Your task to perform on an android device: toggle priority inbox in the gmail app Image 0: 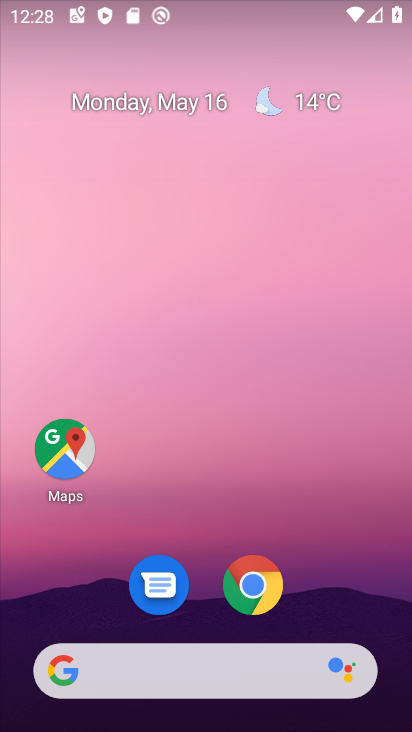
Step 0: drag from (306, 515) to (291, 44)
Your task to perform on an android device: toggle priority inbox in the gmail app Image 1: 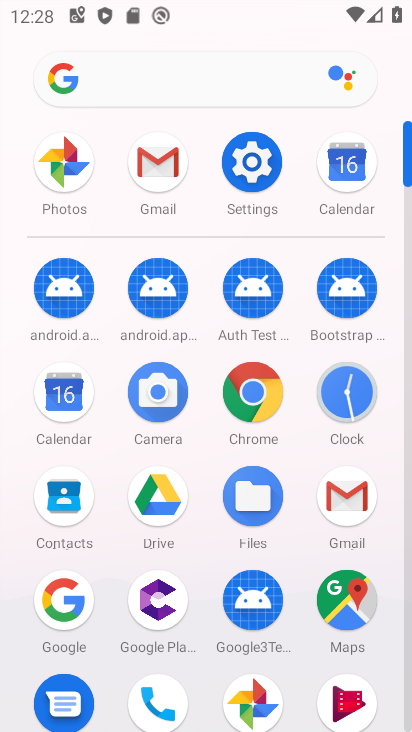
Step 1: click (156, 155)
Your task to perform on an android device: toggle priority inbox in the gmail app Image 2: 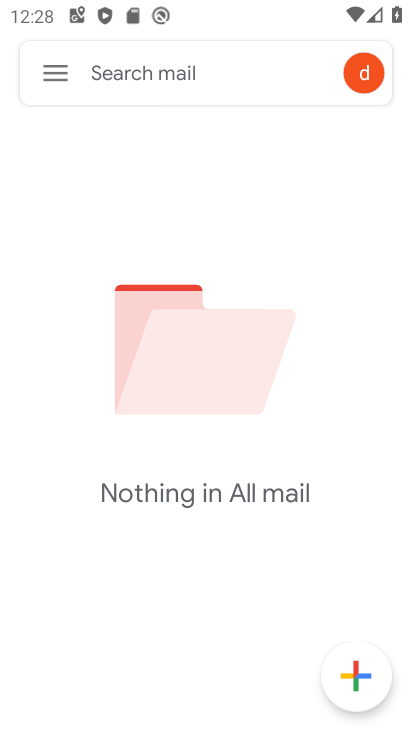
Step 2: click (51, 73)
Your task to perform on an android device: toggle priority inbox in the gmail app Image 3: 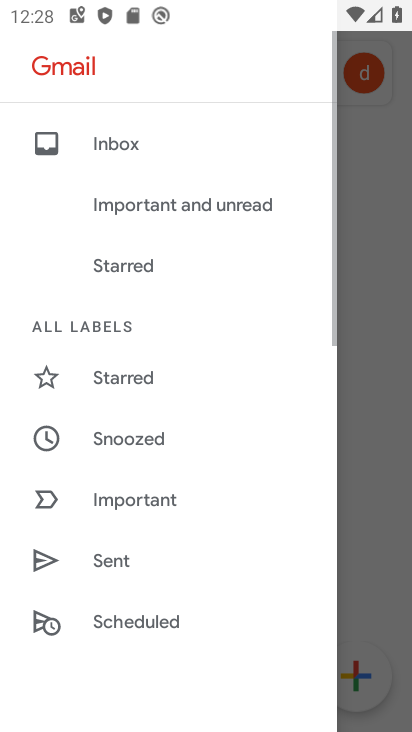
Step 3: drag from (211, 531) to (225, 216)
Your task to perform on an android device: toggle priority inbox in the gmail app Image 4: 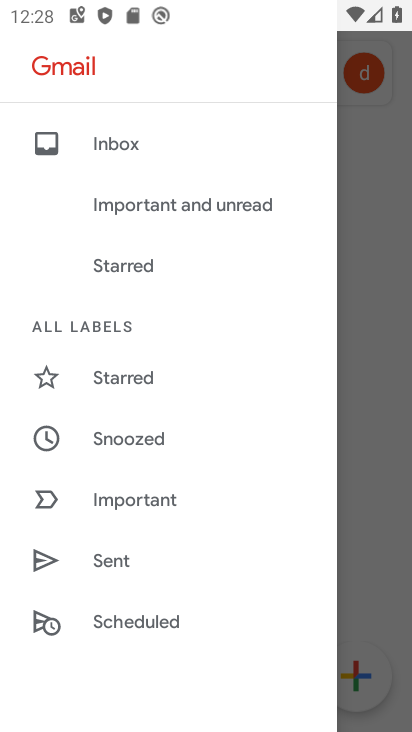
Step 4: drag from (130, 582) to (158, 60)
Your task to perform on an android device: toggle priority inbox in the gmail app Image 5: 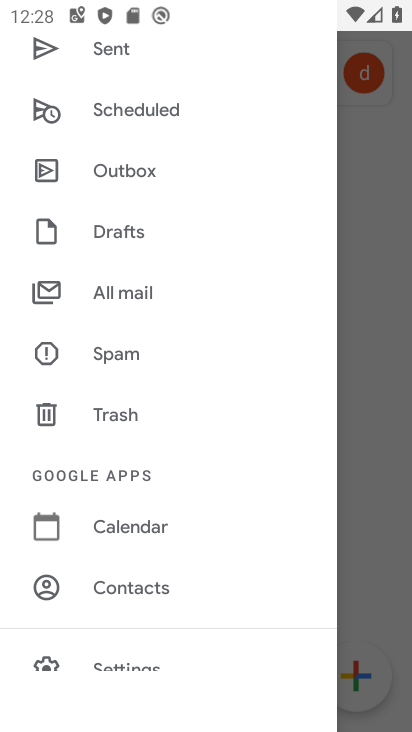
Step 5: drag from (149, 386) to (176, 94)
Your task to perform on an android device: toggle priority inbox in the gmail app Image 6: 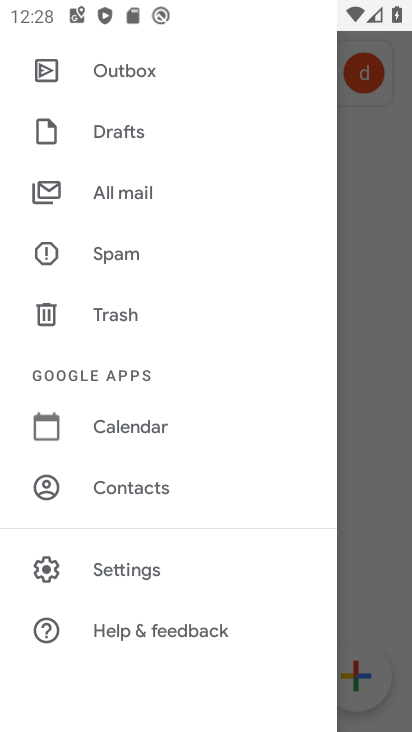
Step 6: click (148, 569)
Your task to perform on an android device: toggle priority inbox in the gmail app Image 7: 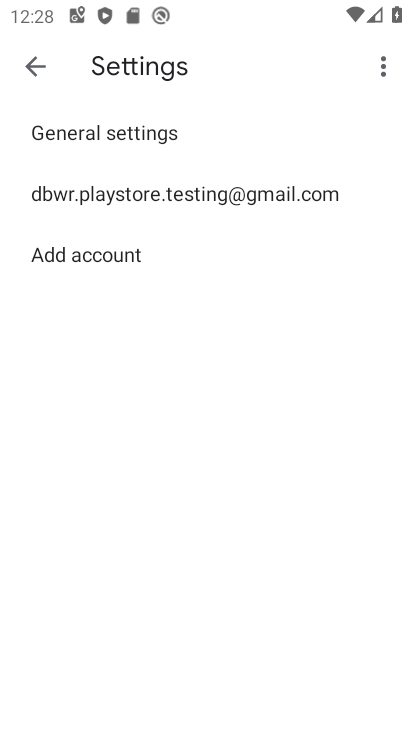
Step 7: click (197, 189)
Your task to perform on an android device: toggle priority inbox in the gmail app Image 8: 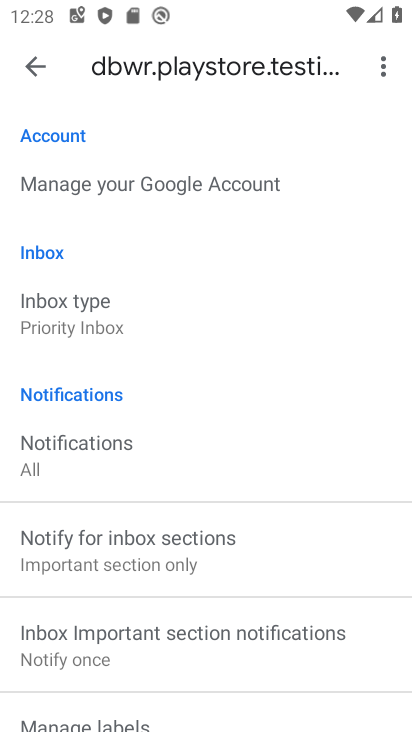
Step 8: click (85, 302)
Your task to perform on an android device: toggle priority inbox in the gmail app Image 9: 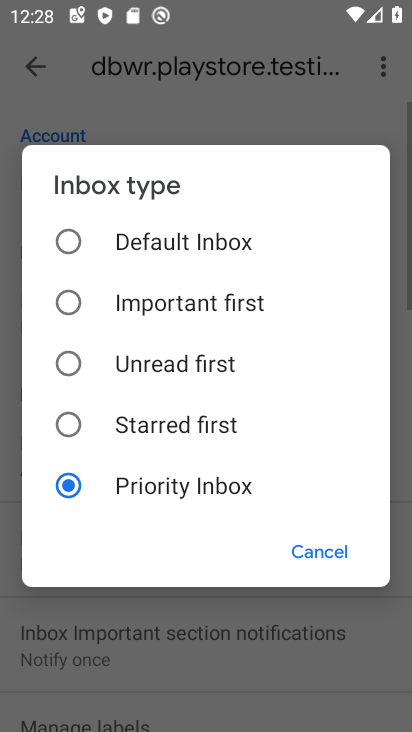
Step 9: click (63, 242)
Your task to perform on an android device: toggle priority inbox in the gmail app Image 10: 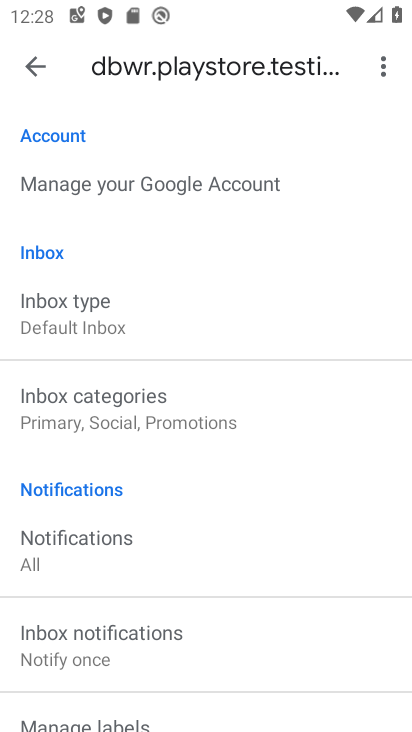
Step 10: task complete